Your task to perform on an android device: Open the phone app and click the voicemail tab. Image 0: 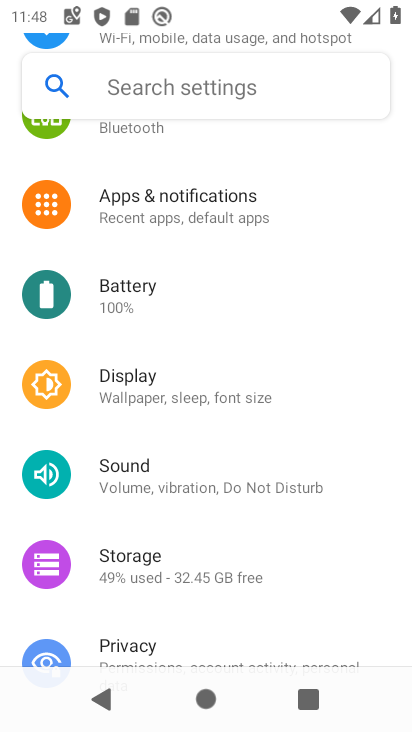
Step 0: press home button
Your task to perform on an android device: Open the phone app and click the voicemail tab. Image 1: 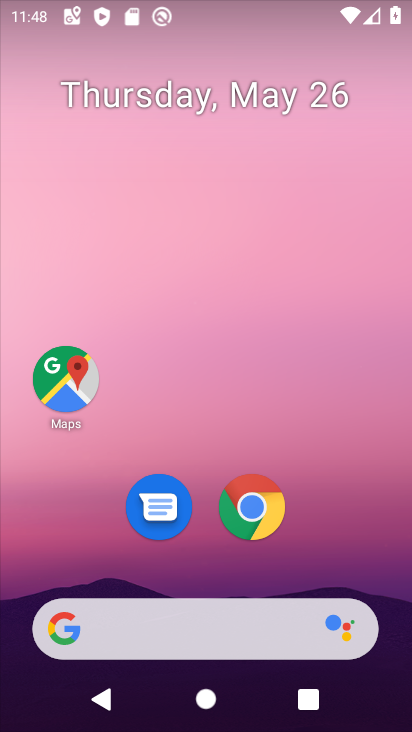
Step 1: drag from (316, 533) to (312, 123)
Your task to perform on an android device: Open the phone app and click the voicemail tab. Image 2: 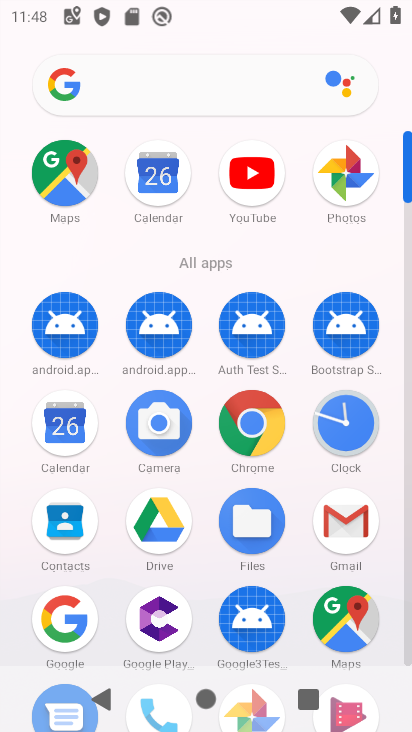
Step 2: drag from (217, 581) to (245, 302)
Your task to perform on an android device: Open the phone app and click the voicemail tab. Image 3: 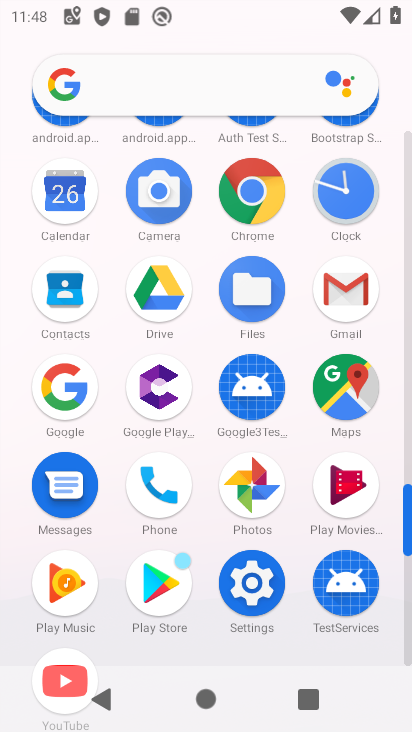
Step 3: click (151, 490)
Your task to perform on an android device: Open the phone app and click the voicemail tab. Image 4: 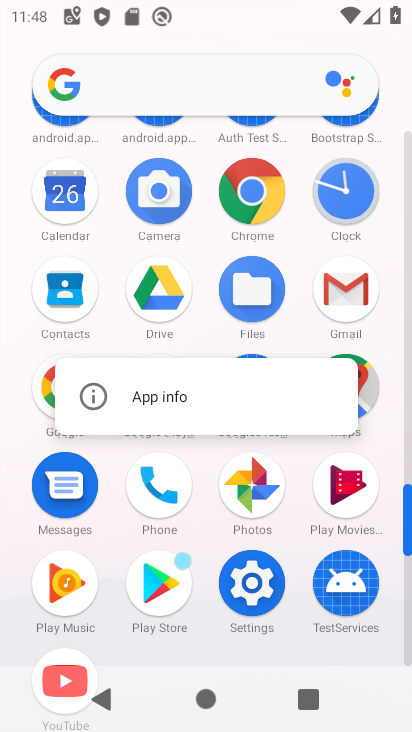
Step 4: click (155, 495)
Your task to perform on an android device: Open the phone app and click the voicemail tab. Image 5: 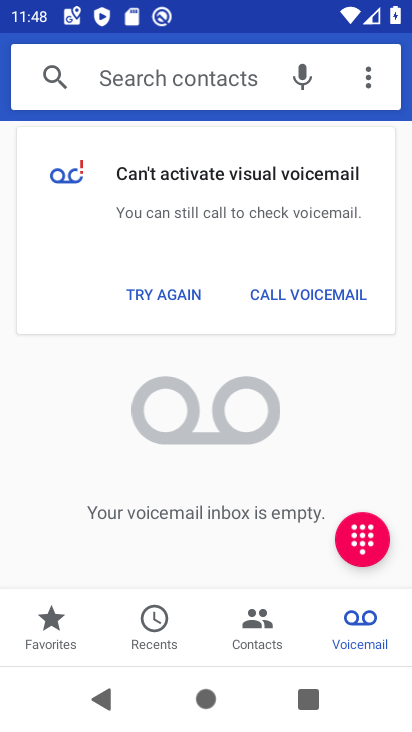
Step 5: click (377, 637)
Your task to perform on an android device: Open the phone app and click the voicemail tab. Image 6: 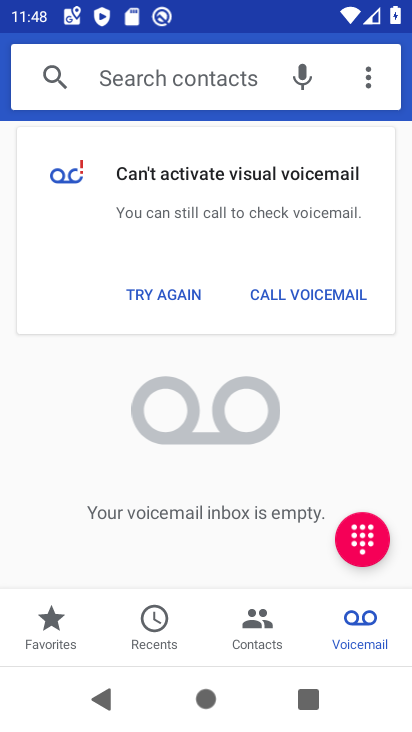
Step 6: task complete